Your task to perform on an android device: Open a new tab in Chrome Image 0: 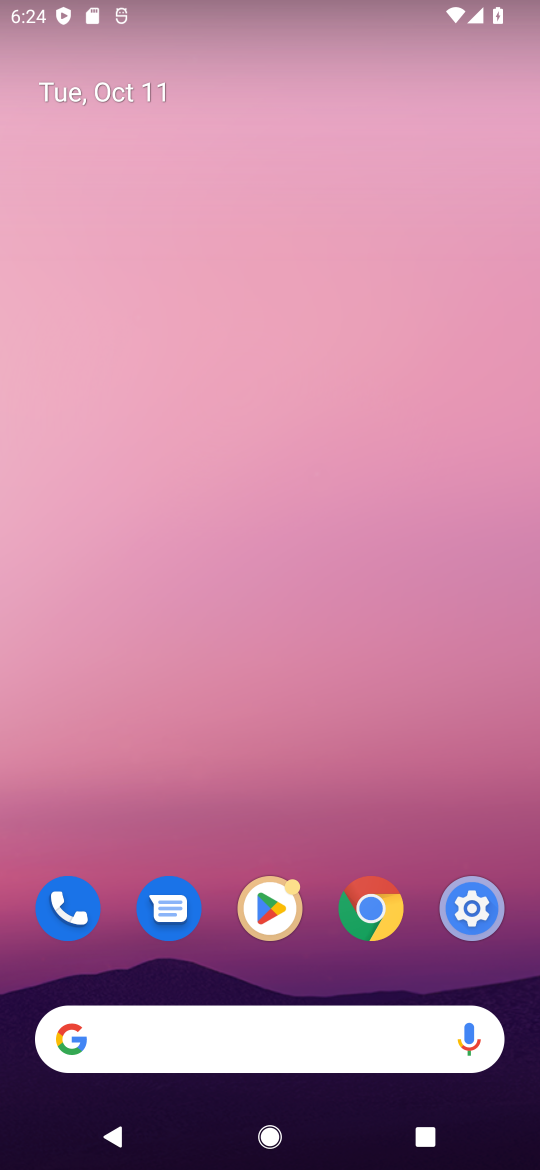
Step 0: click (366, 923)
Your task to perform on an android device: Open a new tab in Chrome Image 1: 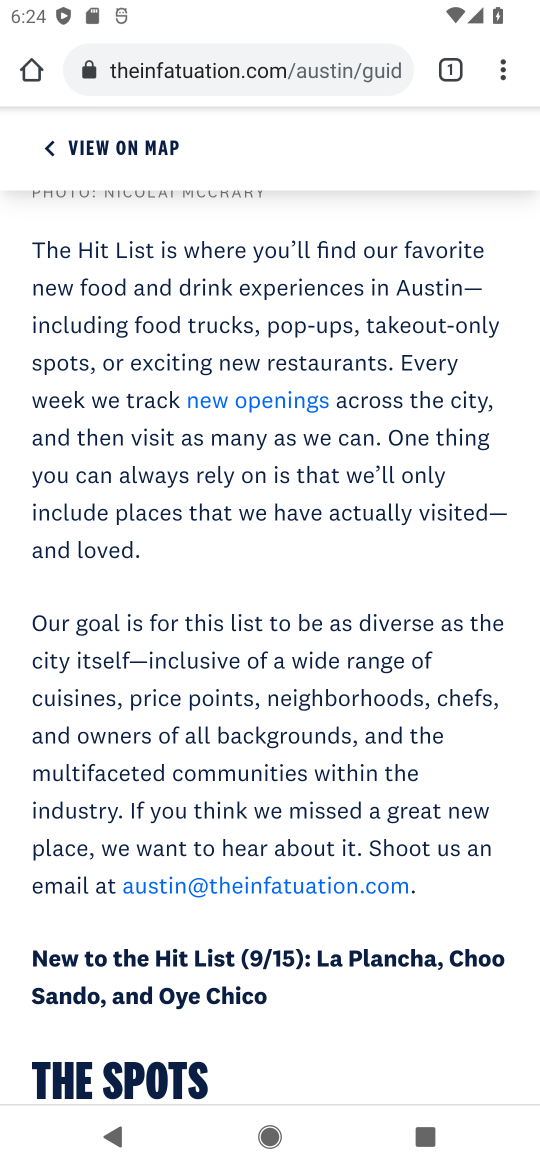
Step 1: click (497, 67)
Your task to perform on an android device: Open a new tab in Chrome Image 2: 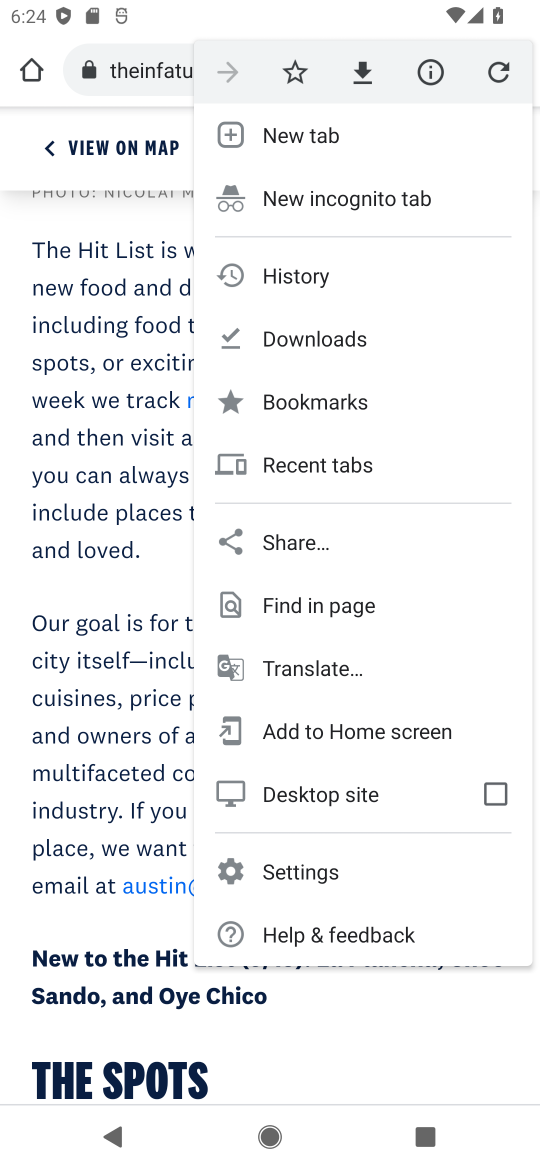
Step 2: click (288, 133)
Your task to perform on an android device: Open a new tab in Chrome Image 3: 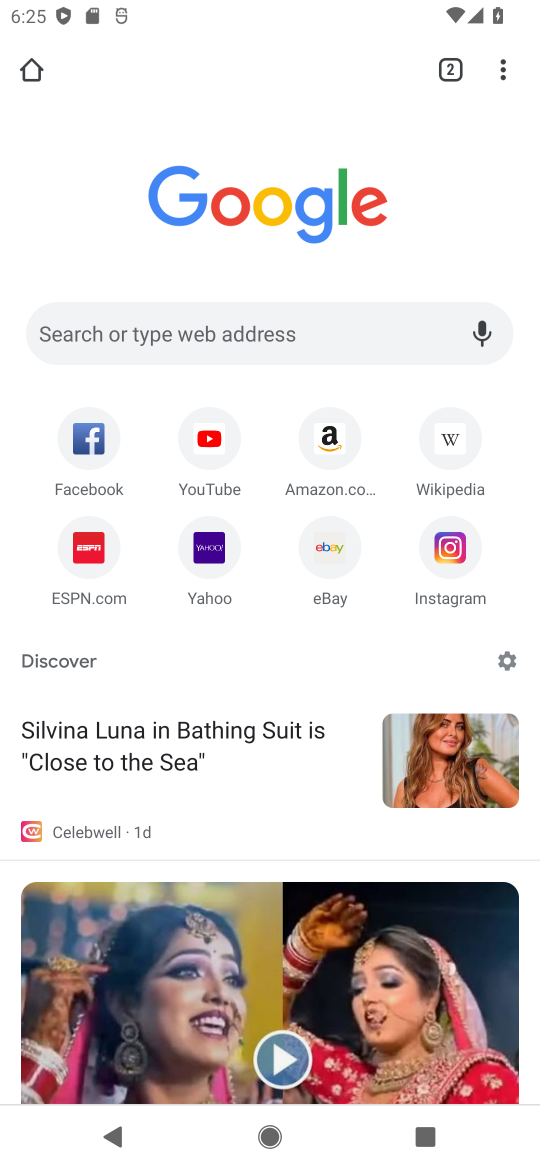
Step 3: task complete